Your task to perform on an android device: Open settings Image 0: 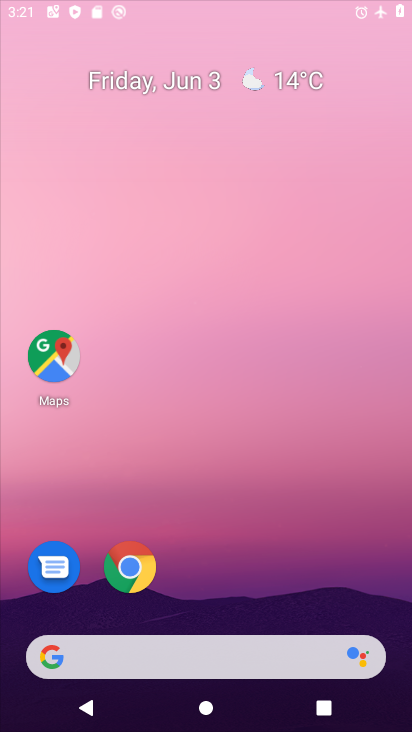
Step 0: click (144, 2)
Your task to perform on an android device: Open settings Image 1: 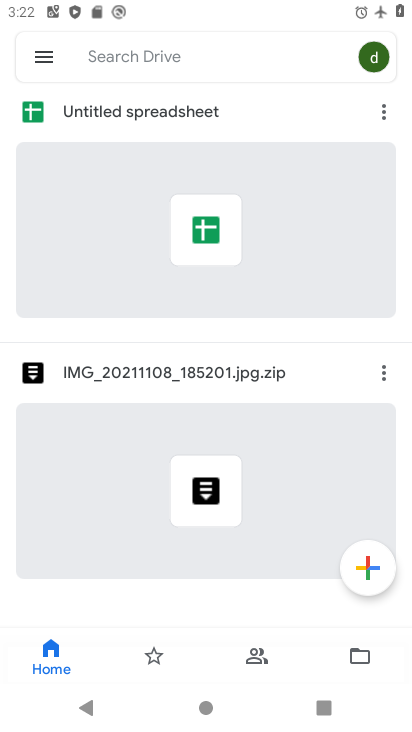
Step 1: press home button
Your task to perform on an android device: Open settings Image 2: 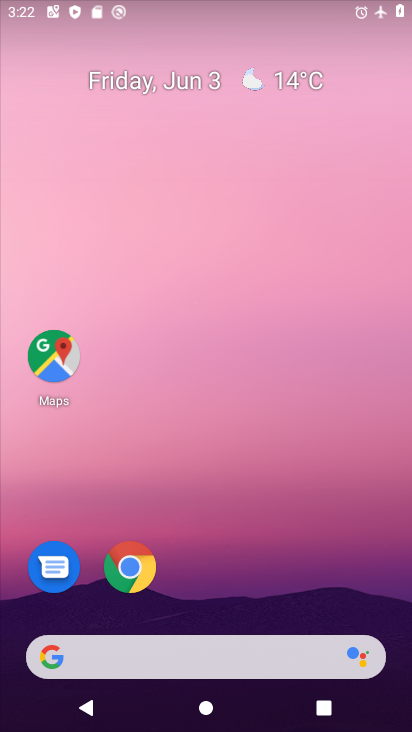
Step 2: drag from (287, 670) to (231, 310)
Your task to perform on an android device: Open settings Image 3: 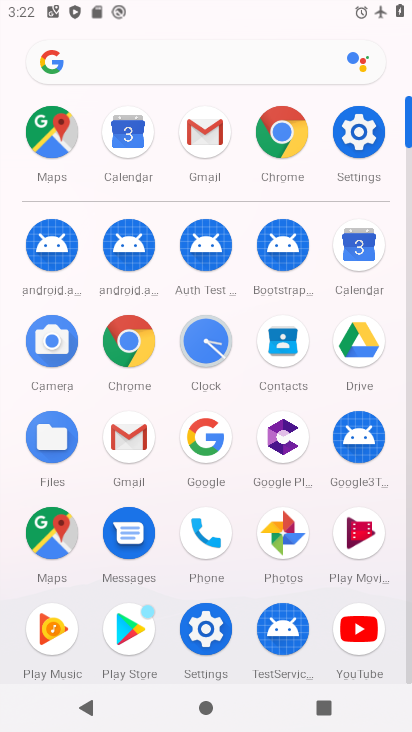
Step 3: click (189, 631)
Your task to perform on an android device: Open settings Image 4: 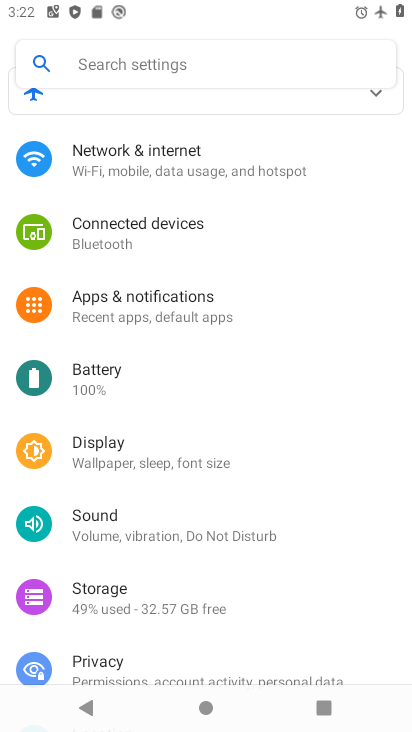
Step 4: click (410, 393)
Your task to perform on an android device: Open settings Image 5: 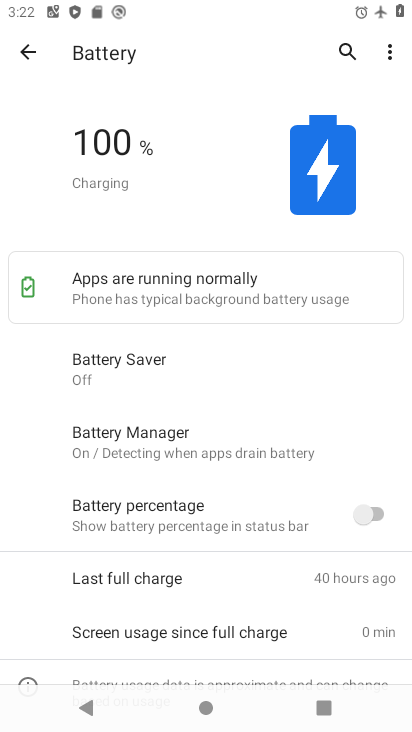
Step 5: task complete